Your task to perform on an android device: Open calendar and show me the third week of next month Image 0: 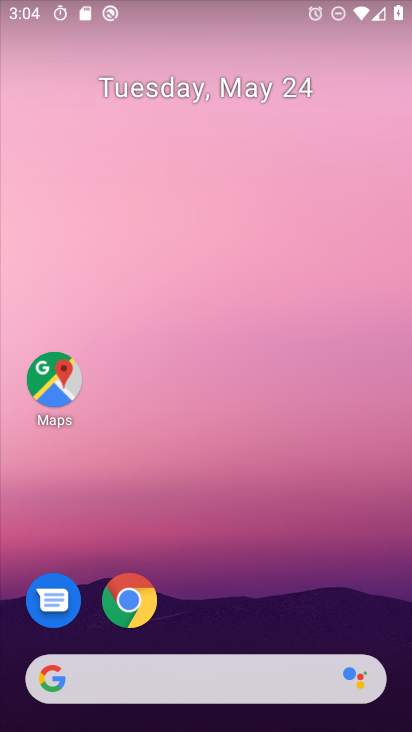
Step 0: drag from (275, 574) to (310, 146)
Your task to perform on an android device: Open calendar and show me the third week of next month Image 1: 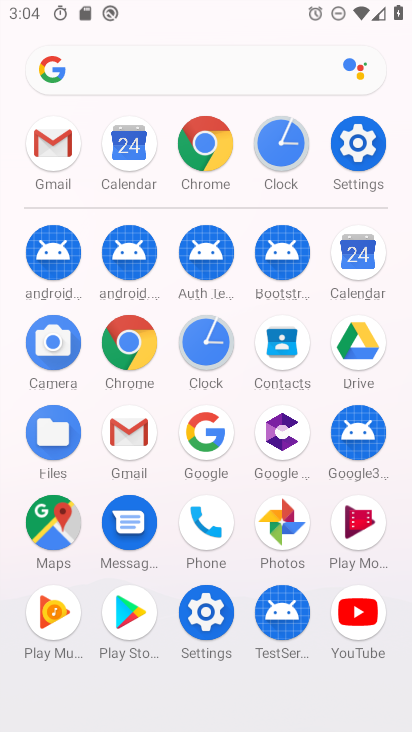
Step 1: click (350, 266)
Your task to perform on an android device: Open calendar and show me the third week of next month Image 2: 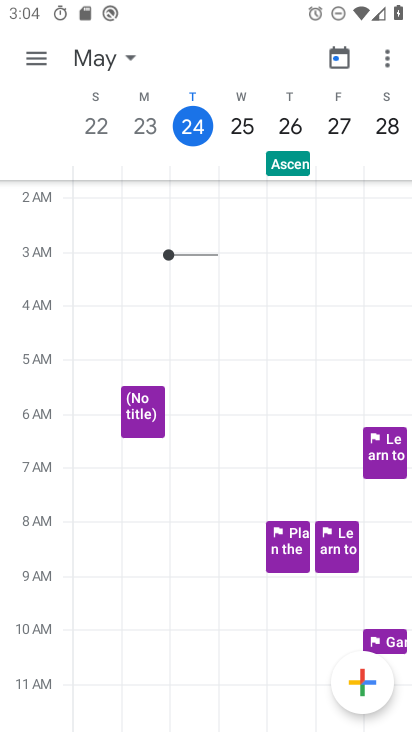
Step 2: click (86, 60)
Your task to perform on an android device: Open calendar and show me the third week of next month Image 3: 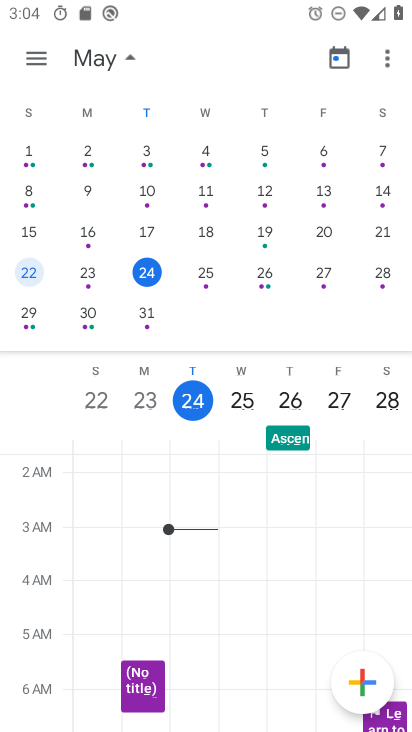
Step 3: drag from (352, 269) to (0, 233)
Your task to perform on an android device: Open calendar and show me the third week of next month Image 4: 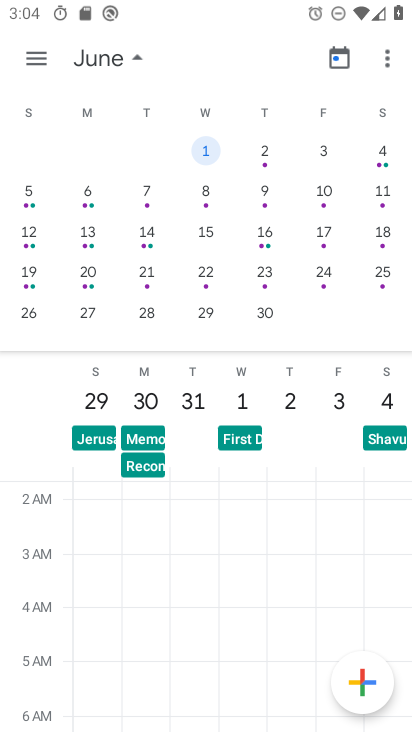
Step 4: click (31, 276)
Your task to perform on an android device: Open calendar and show me the third week of next month Image 5: 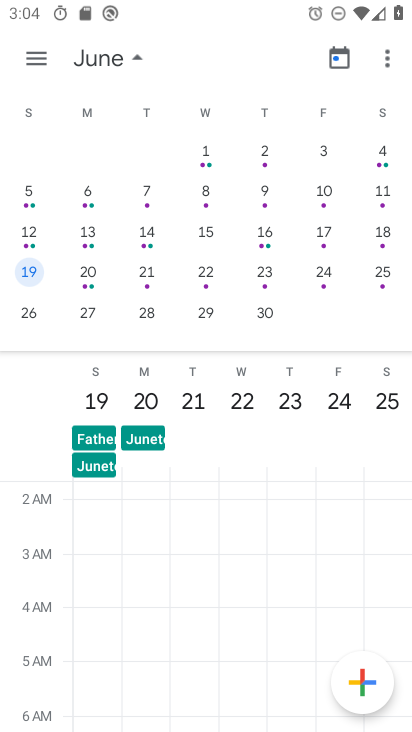
Step 5: task complete